Your task to perform on an android device: show emergency info Image 0: 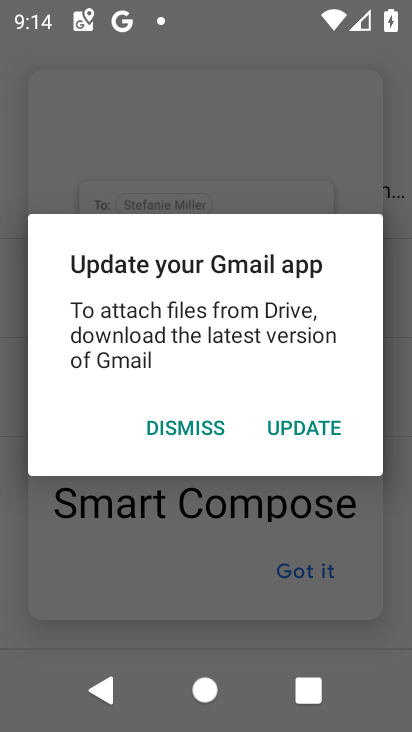
Step 0: press home button
Your task to perform on an android device: show emergency info Image 1: 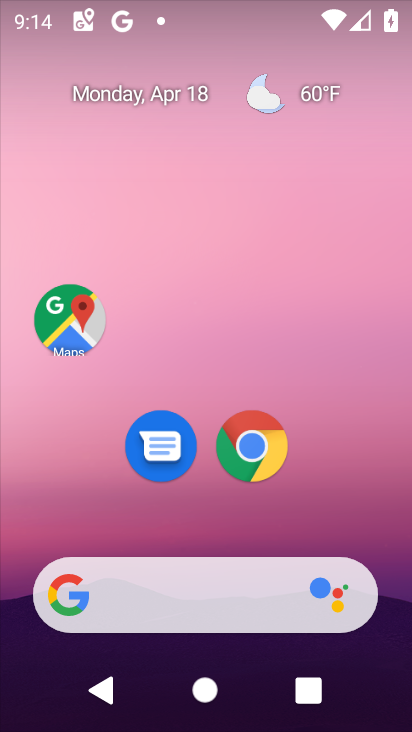
Step 1: drag from (372, 470) to (372, 98)
Your task to perform on an android device: show emergency info Image 2: 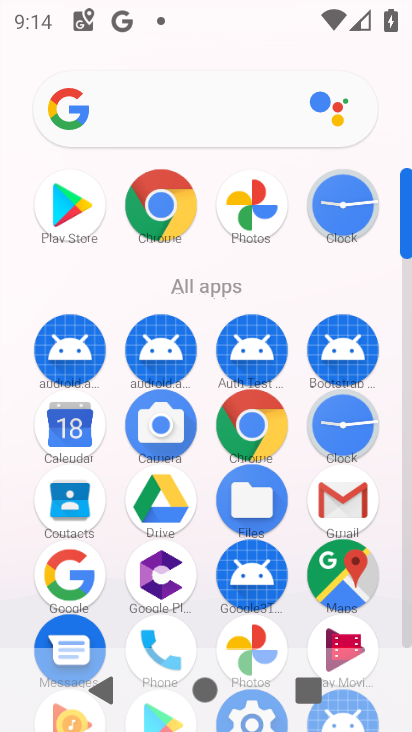
Step 2: drag from (363, 466) to (396, 251)
Your task to perform on an android device: show emergency info Image 3: 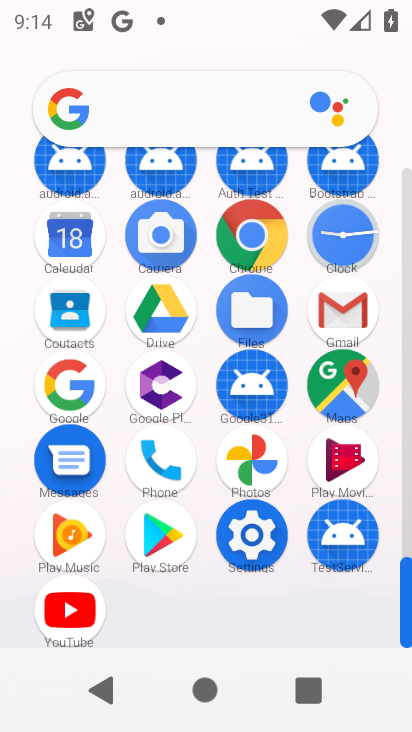
Step 3: click (253, 554)
Your task to perform on an android device: show emergency info Image 4: 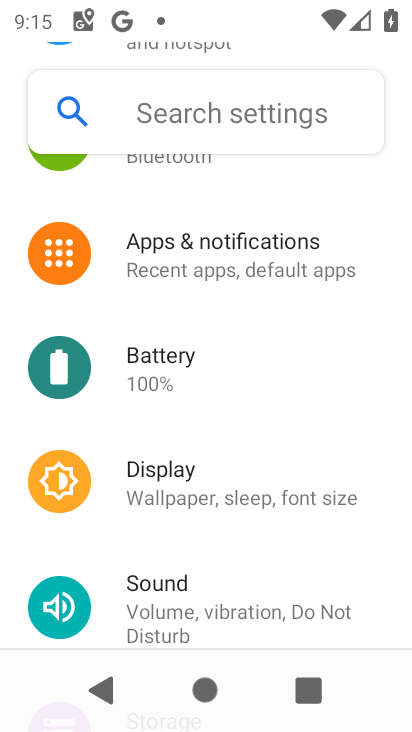
Step 4: drag from (372, 566) to (374, 401)
Your task to perform on an android device: show emergency info Image 5: 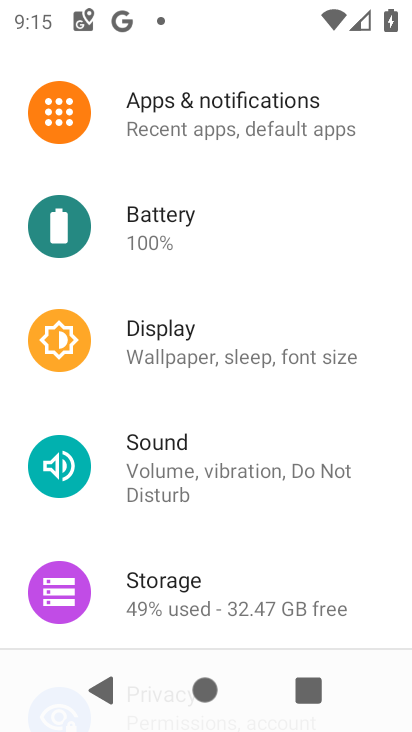
Step 5: drag from (378, 594) to (383, 377)
Your task to perform on an android device: show emergency info Image 6: 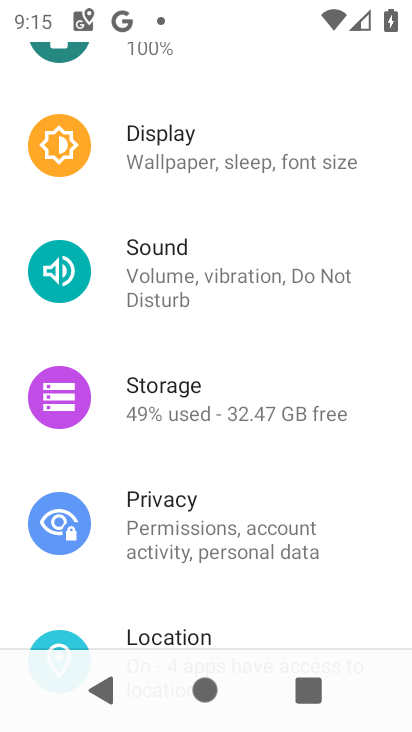
Step 6: drag from (367, 567) to (374, 363)
Your task to perform on an android device: show emergency info Image 7: 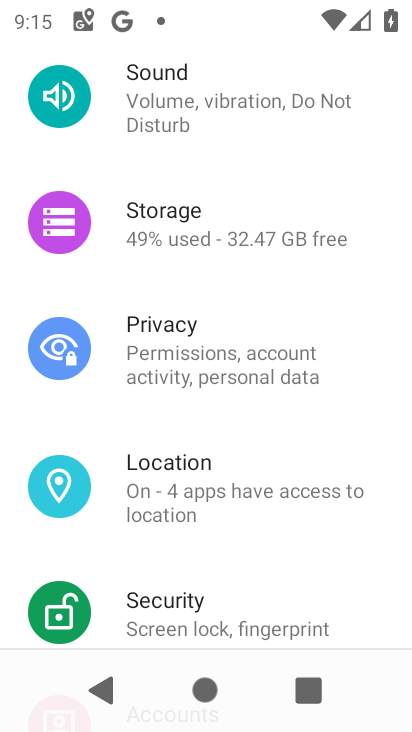
Step 7: drag from (374, 563) to (373, 376)
Your task to perform on an android device: show emergency info Image 8: 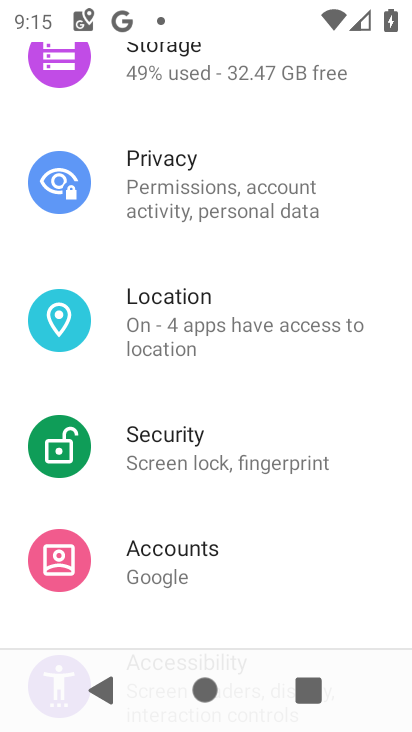
Step 8: drag from (367, 548) to (370, 360)
Your task to perform on an android device: show emergency info Image 9: 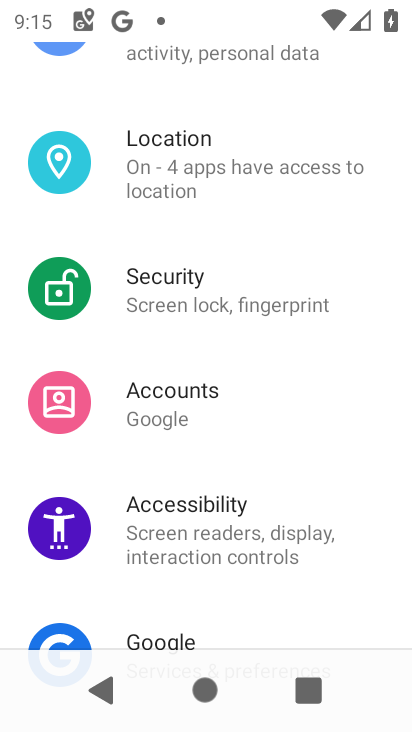
Step 9: drag from (365, 568) to (365, 369)
Your task to perform on an android device: show emergency info Image 10: 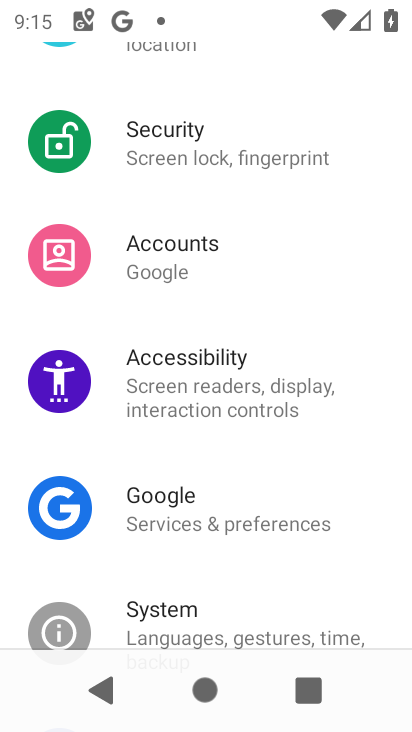
Step 10: drag from (371, 566) to (374, 376)
Your task to perform on an android device: show emergency info Image 11: 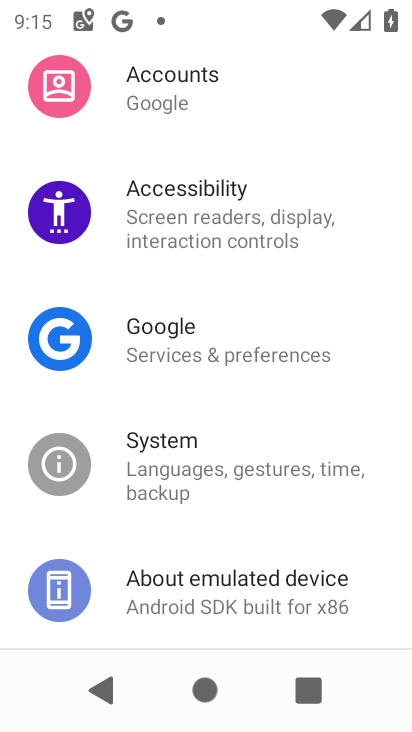
Step 11: drag from (382, 616) to (385, 381)
Your task to perform on an android device: show emergency info Image 12: 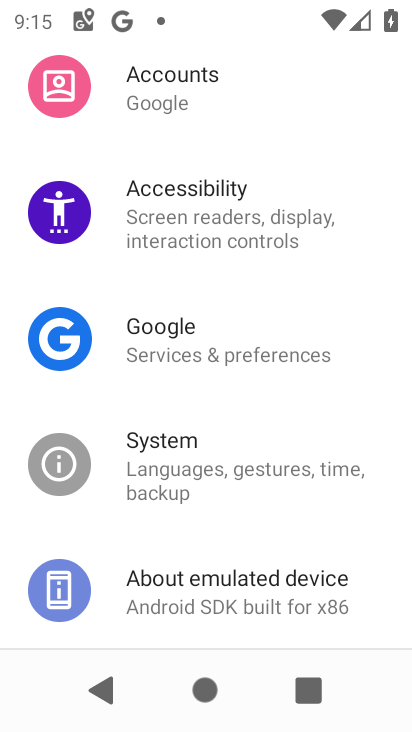
Step 12: click (328, 597)
Your task to perform on an android device: show emergency info Image 13: 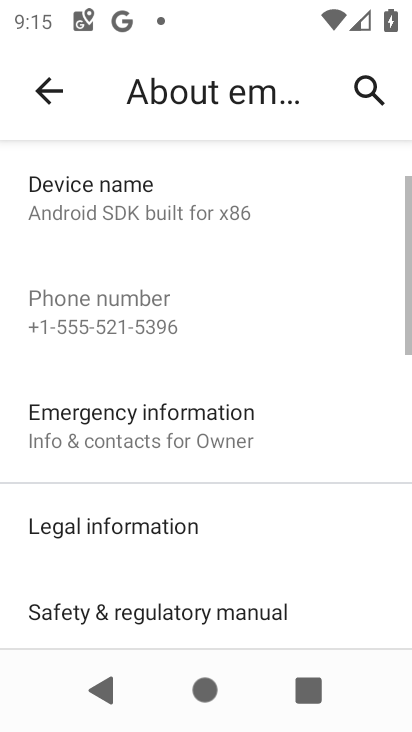
Step 13: drag from (348, 537) to (323, 373)
Your task to perform on an android device: show emergency info Image 14: 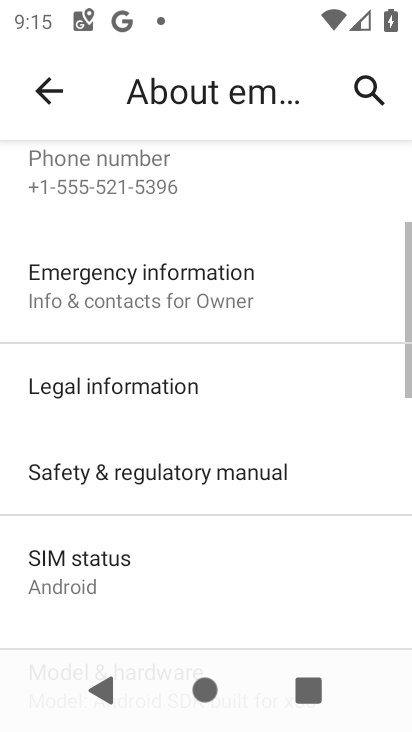
Step 14: drag from (327, 554) to (325, 432)
Your task to perform on an android device: show emergency info Image 15: 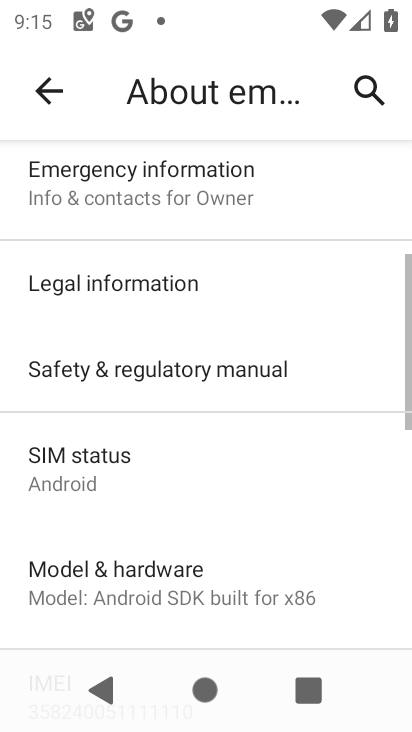
Step 15: click (207, 173)
Your task to perform on an android device: show emergency info Image 16: 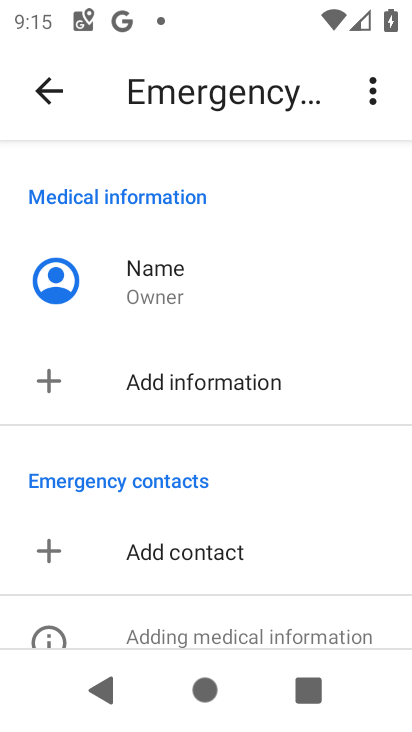
Step 16: task complete